Your task to perform on an android device: Go to accessibility settings Image 0: 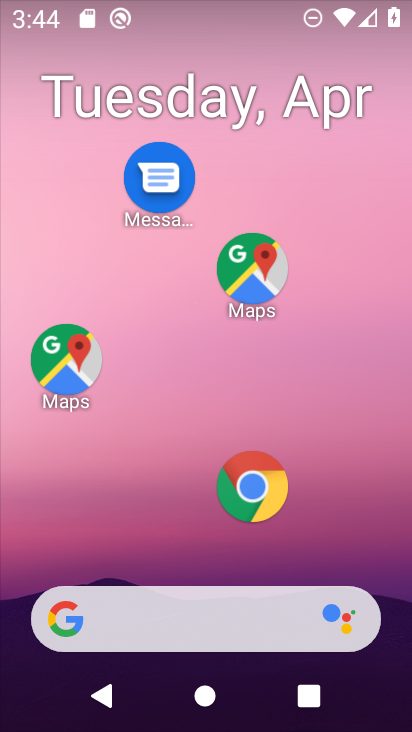
Step 0: drag from (208, 398) to (273, 100)
Your task to perform on an android device: Go to accessibility settings Image 1: 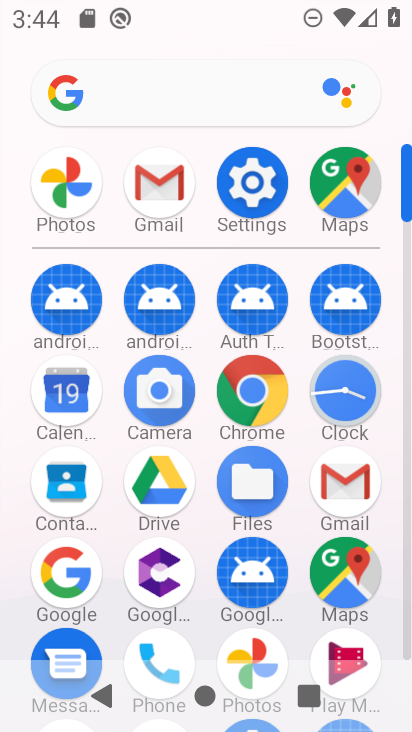
Step 1: click (263, 197)
Your task to perform on an android device: Go to accessibility settings Image 2: 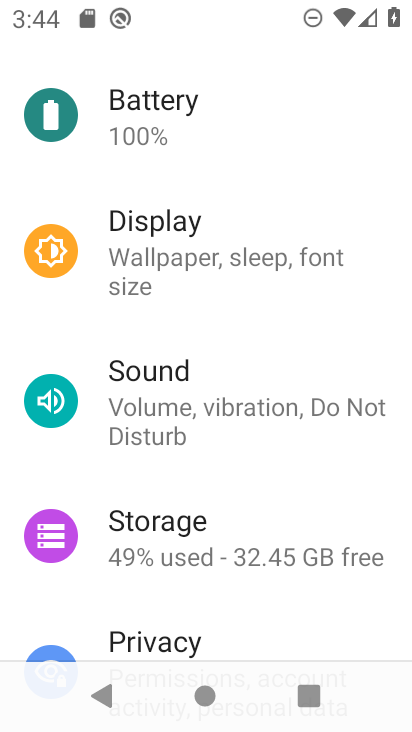
Step 2: drag from (358, 550) to (318, 190)
Your task to perform on an android device: Go to accessibility settings Image 3: 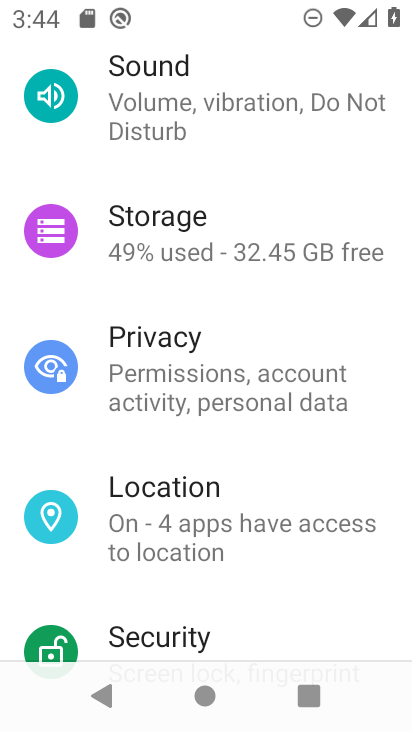
Step 3: drag from (278, 547) to (296, 147)
Your task to perform on an android device: Go to accessibility settings Image 4: 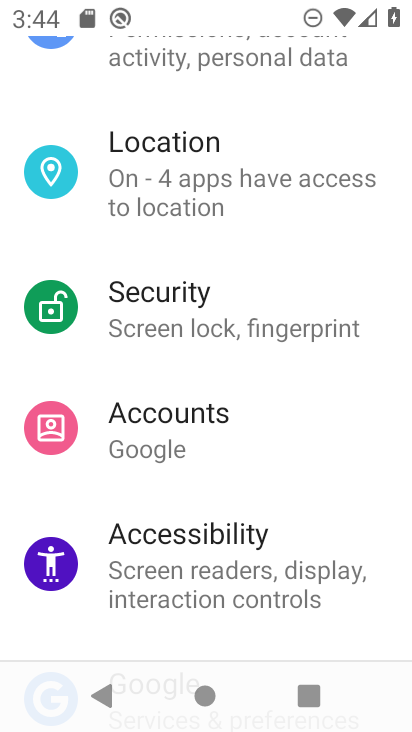
Step 4: click (250, 557)
Your task to perform on an android device: Go to accessibility settings Image 5: 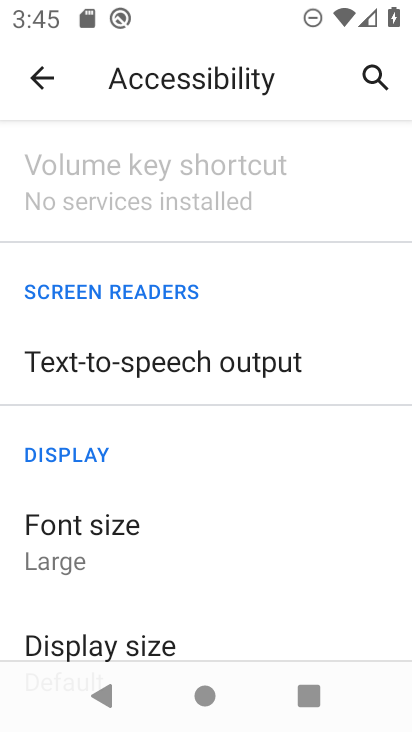
Step 5: task complete